Your task to perform on an android device: Open Chrome and go to settings Image 0: 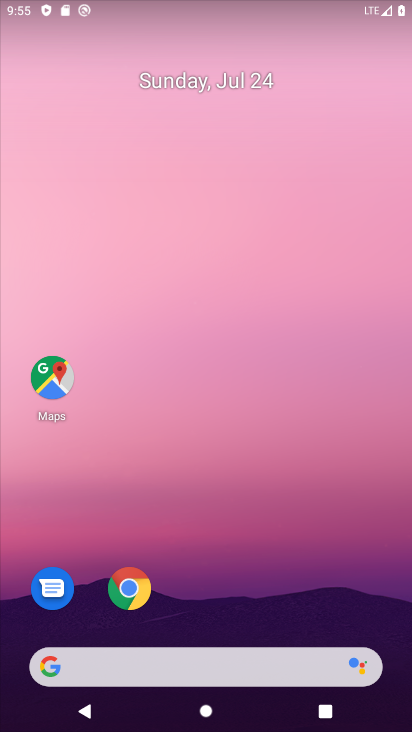
Step 0: click (121, 599)
Your task to perform on an android device: Open Chrome and go to settings Image 1: 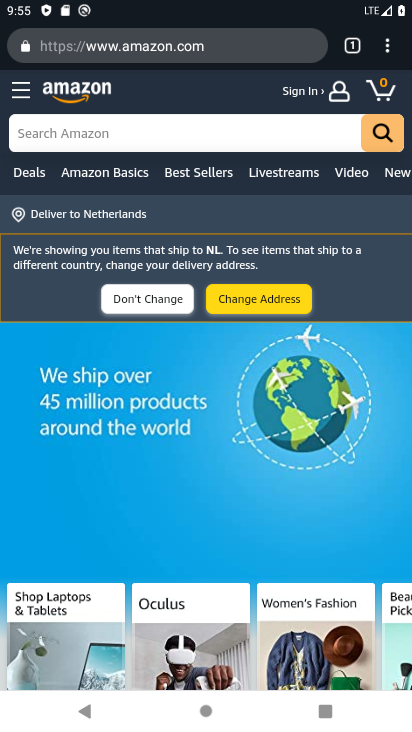
Step 1: click (393, 42)
Your task to perform on an android device: Open Chrome and go to settings Image 2: 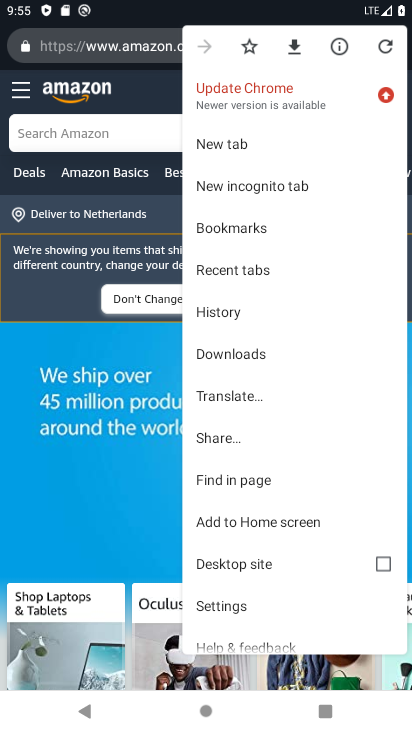
Step 2: click (221, 598)
Your task to perform on an android device: Open Chrome and go to settings Image 3: 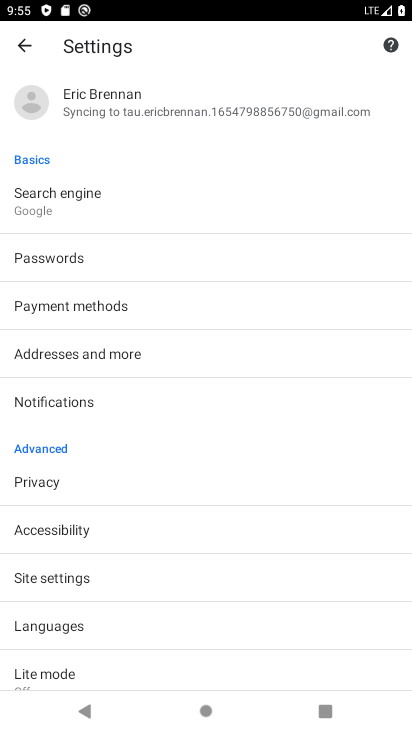
Step 3: task complete